Your task to perform on an android device: allow cookies in the chrome app Image 0: 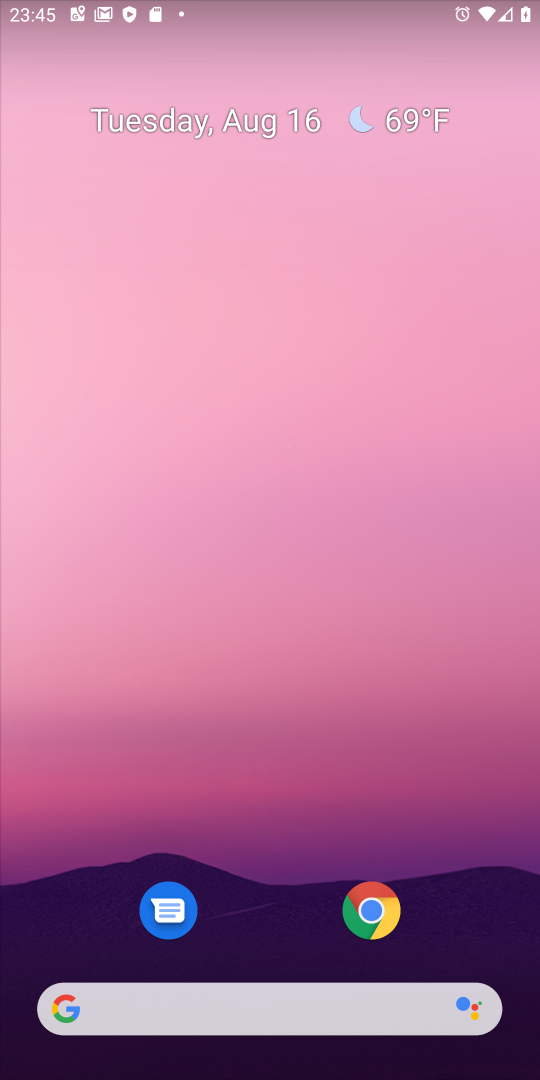
Step 0: drag from (282, 825) to (296, 172)
Your task to perform on an android device: allow cookies in the chrome app Image 1: 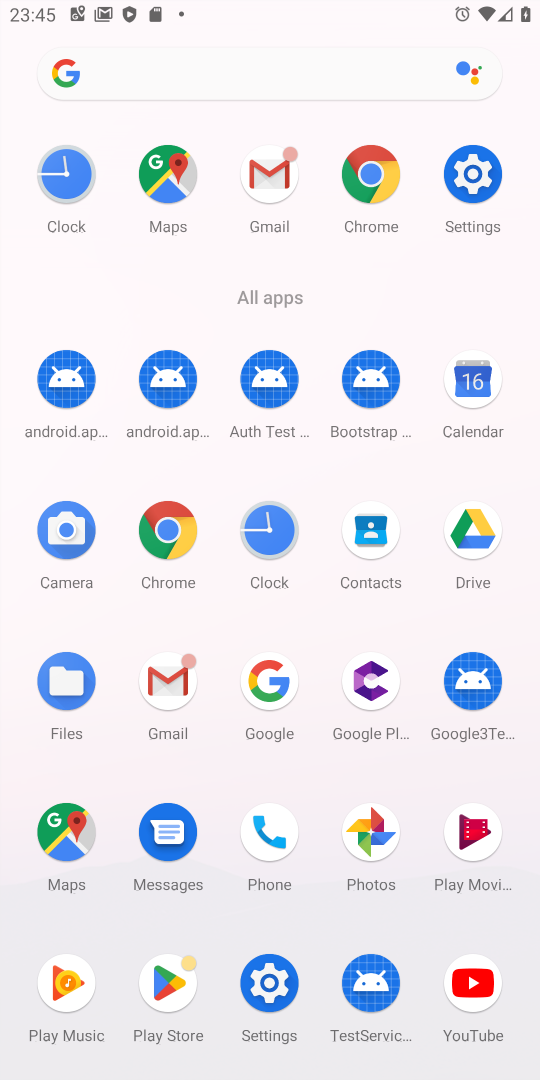
Step 1: click (171, 539)
Your task to perform on an android device: allow cookies in the chrome app Image 2: 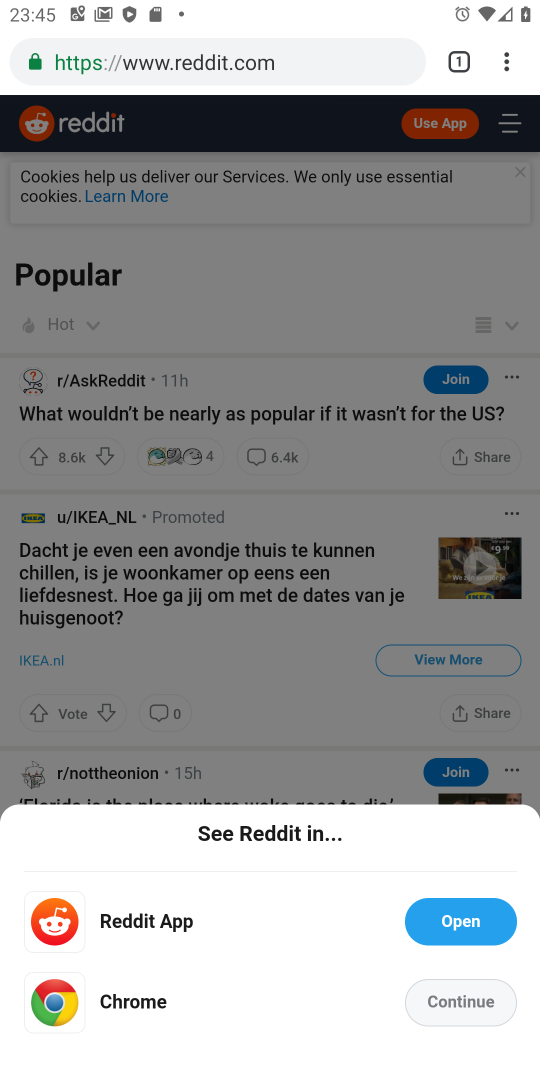
Step 2: drag from (532, 58) to (319, 817)
Your task to perform on an android device: allow cookies in the chrome app Image 3: 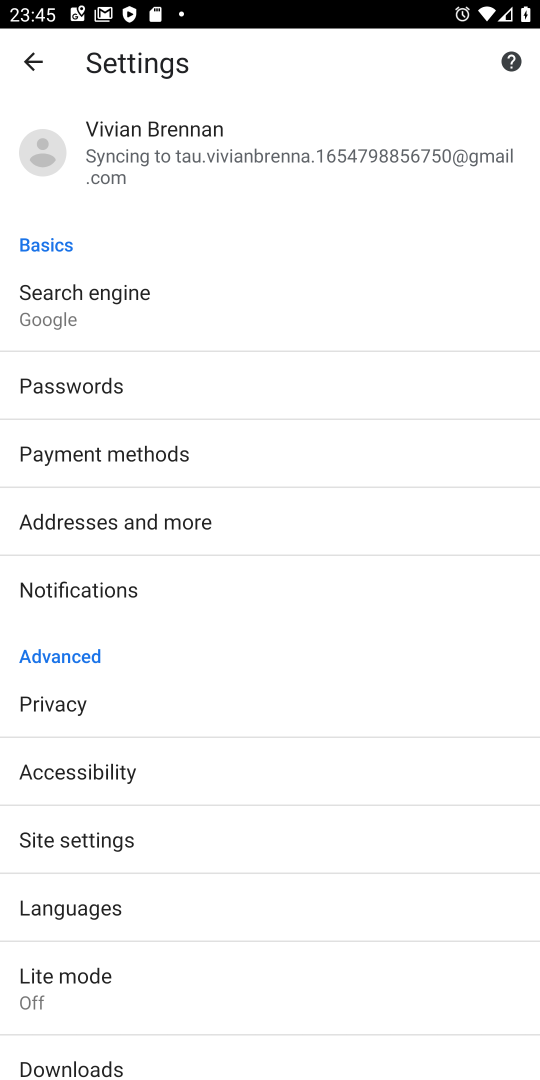
Step 3: click (191, 840)
Your task to perform on an android device: allow cookies in the chrome app Image 4: 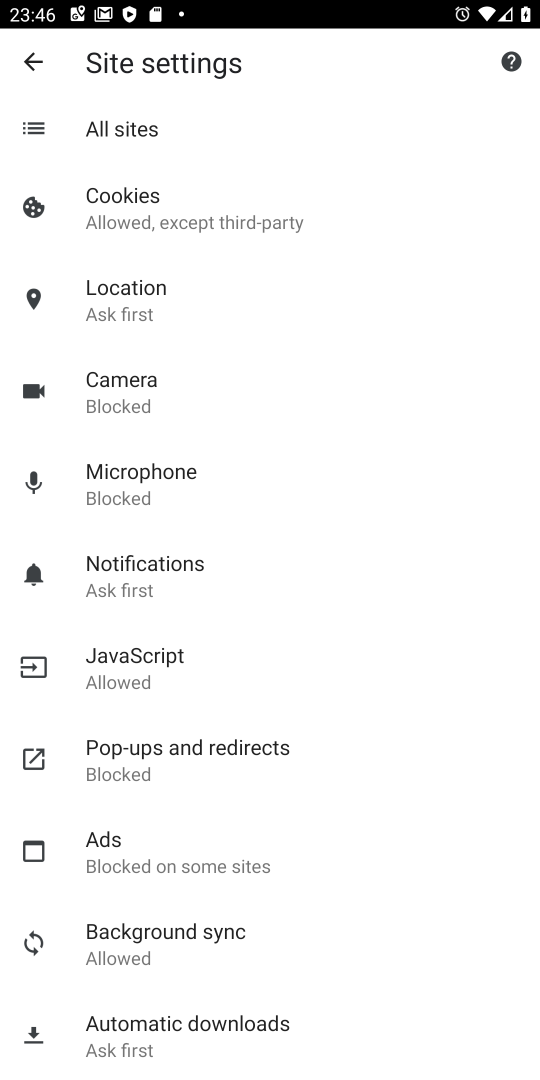
Step 4: click (152, 199)
Your task to perform on an android device: allow cookies in the chrome app Image 5: 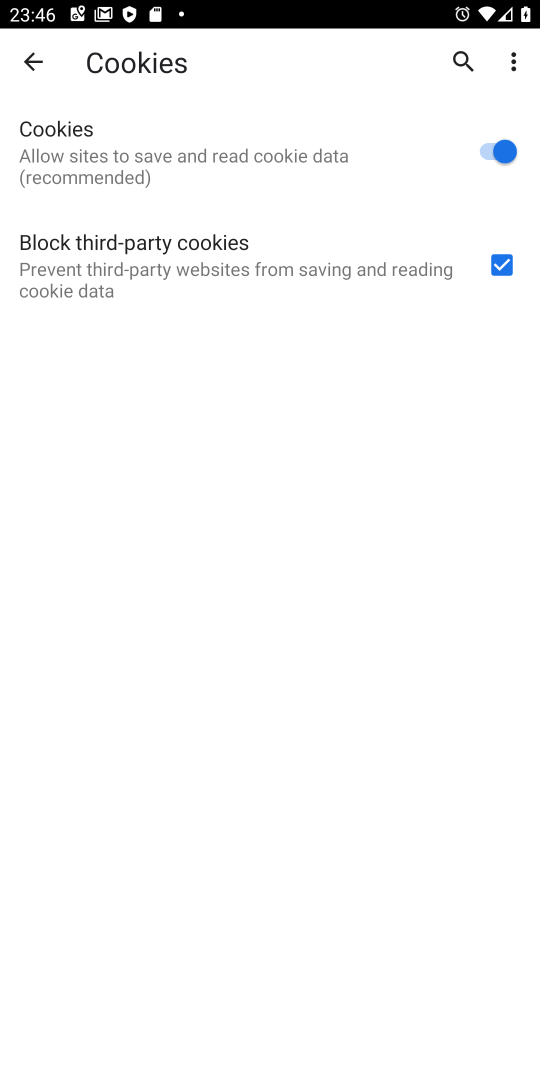
Step 5: task complete